Your task to perform on an android device: Show me recent news Image 0: 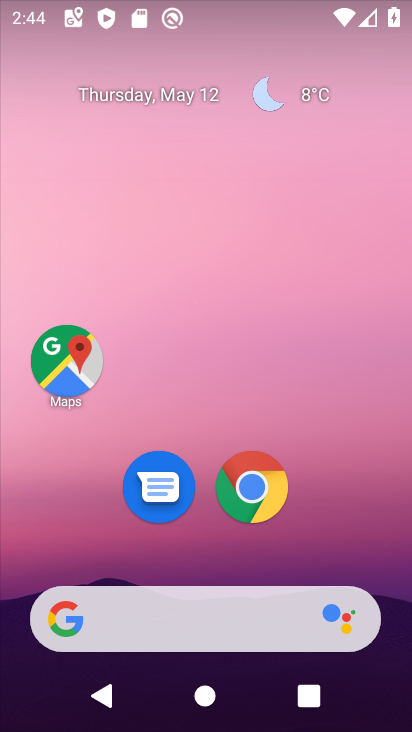
Step 0: drag from (332, 504) to (289, 20)
Your task to perform on an android device: Show me recent news Image 1: 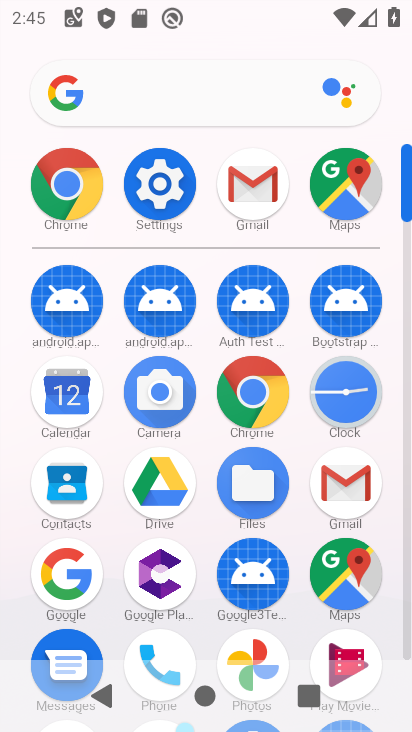
Step 1: click (256, 386)
Your task to perform on an android device: Show me recent news Image 2: 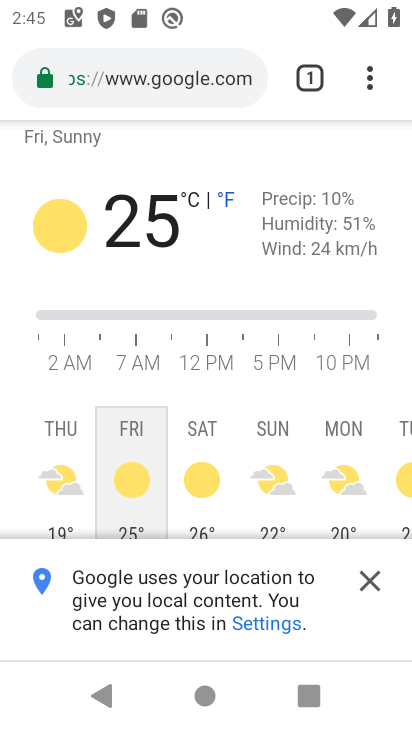
Step 2: click (158, 77)
Your task to perform on an android device: Show me recent news Image 3: 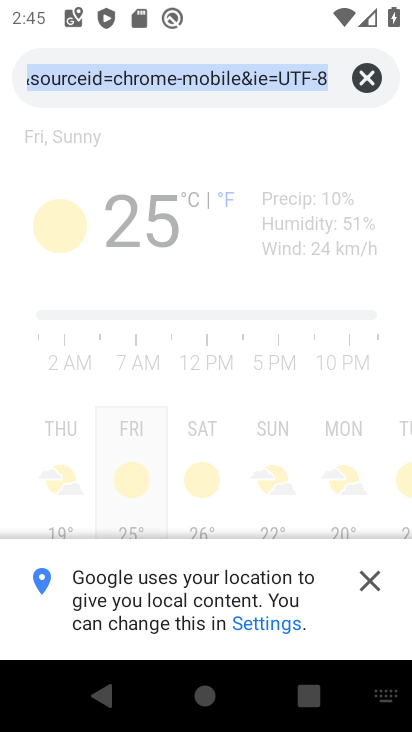
Step 3: type "news"
Your task to perform on an android device: Show me recent news Image 4: 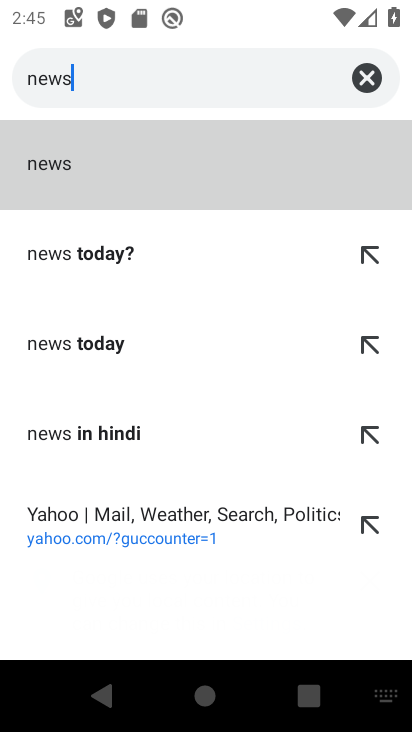
Step 4: click (40, 157)
Your task to perform on an android device: Show me recent news Image 5: 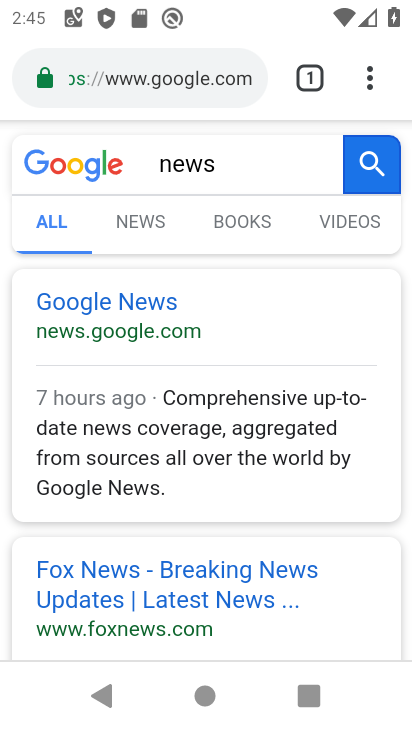
Step 5: click (138, 230)
Your task to perform on an android device: Show me recent news Image 6: 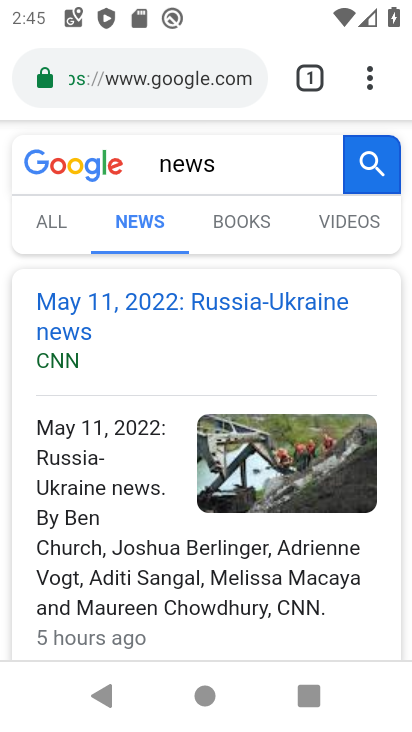
Step 6: task complete